Your task to perform on an android device: Open Wikipedia Image 0: 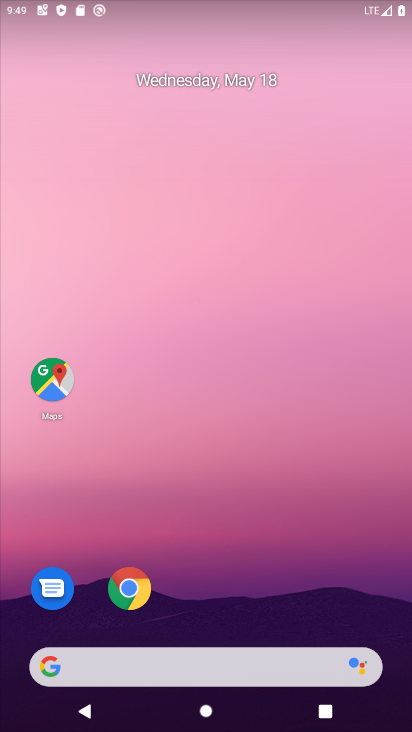
Step 0: click (128, 592)
Your task to perform on an android device: Open Wikipedia Image 1: 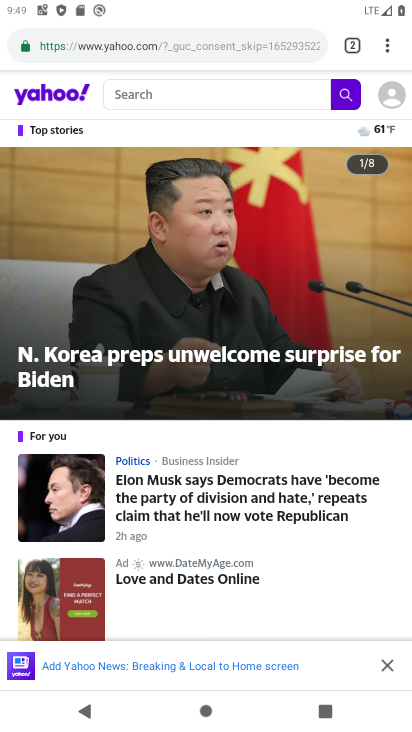
Step 1: click (148, 41)
Your task to perform on an android device: Open Wikipedia Image 2: 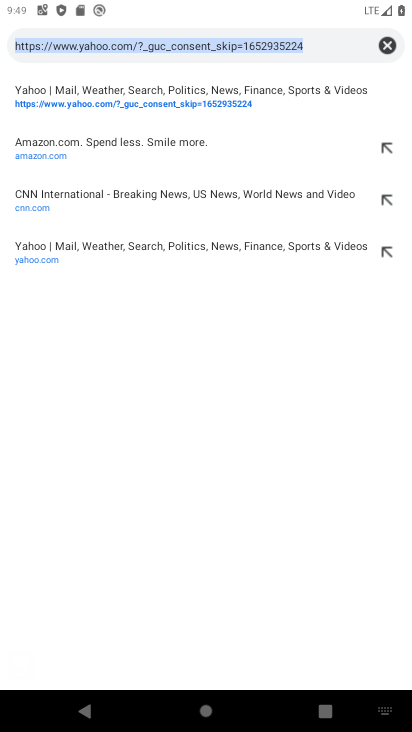
Step 2: click (380, 45)
Your task to perform on an android device: Open Wikipedia Image 3: 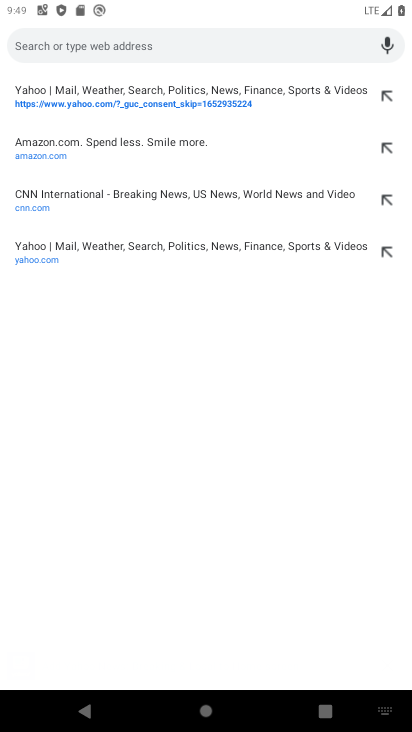
Step 3: type "wikipedia"
Your task to perform on an android device: Open Wikipedia Image 4: 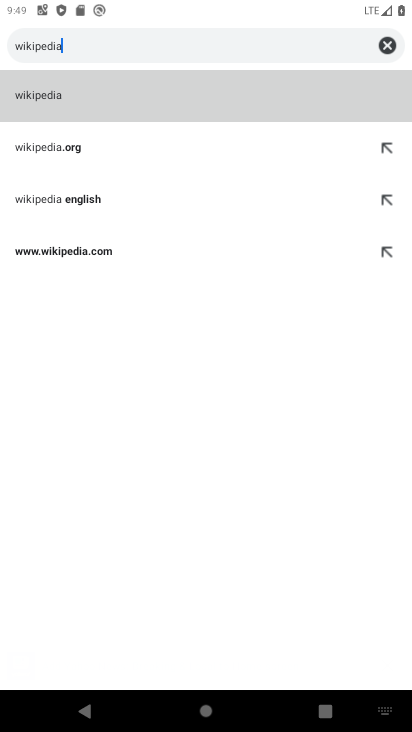
Step 4: click (65, 101)
Your task to perform on an android device: Open Wikipedia Image 5: 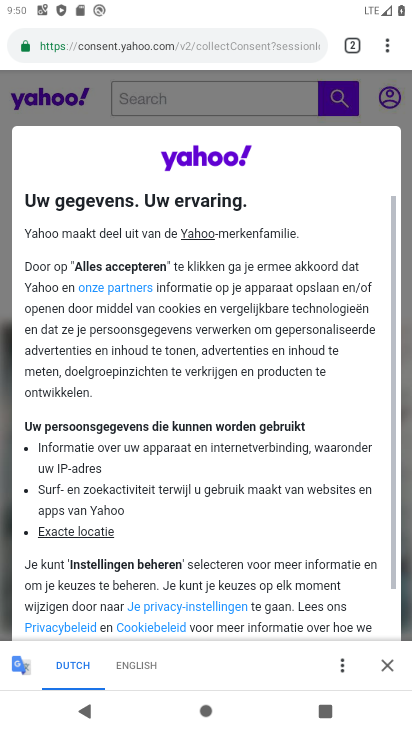
Step 5: click (144, 45)
Your task to perform on an android device: Open Wikipedia Image 6: 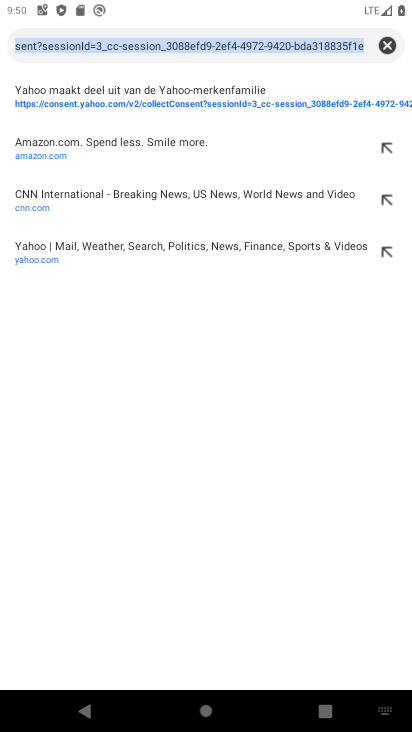
Step 6: click (392, 46)
Your task to perform on an android device: Open Wikipedia Image 7: 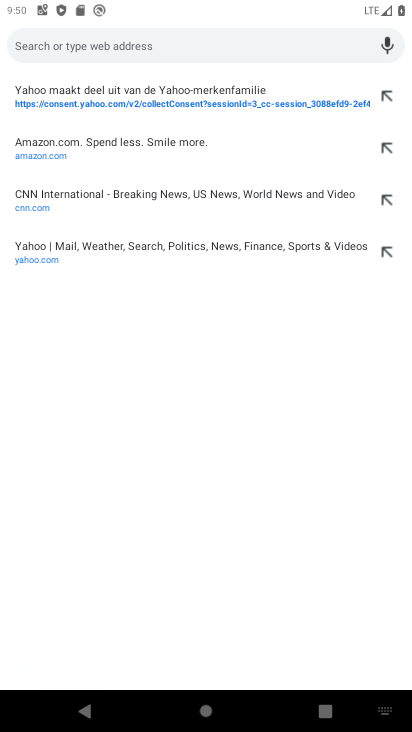
Step 7: type "wikipedia"
Your task to perform on an android device: Open Wikipedia Image 8: 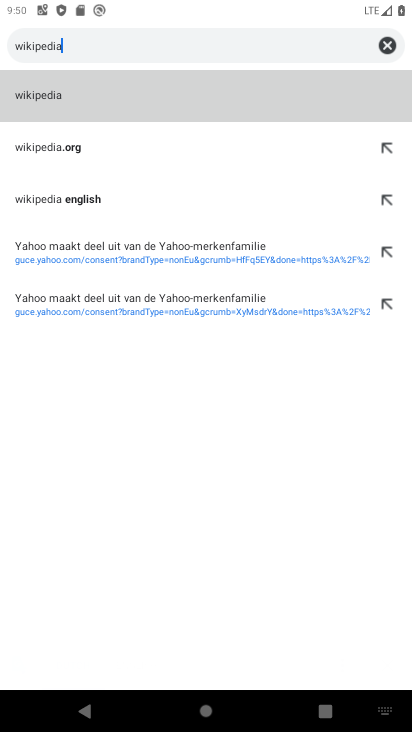
Step 8: click (58, 151)
Your task to perform on an android device: Open Wikipedia Image 9: 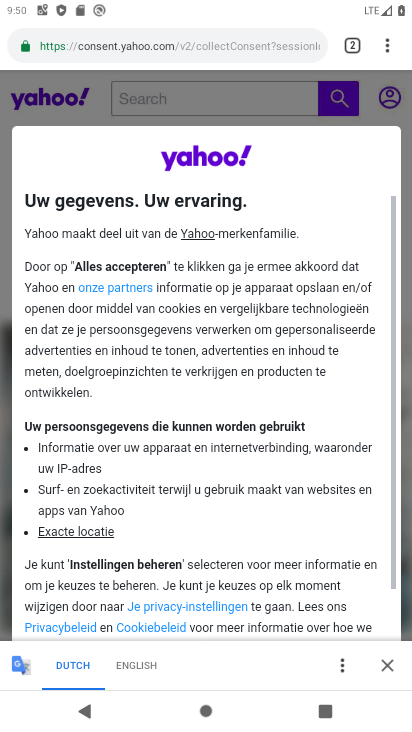
Step 9: click (95, 48)
Your task to perform on an android device: Open Wikipedia Image 10: 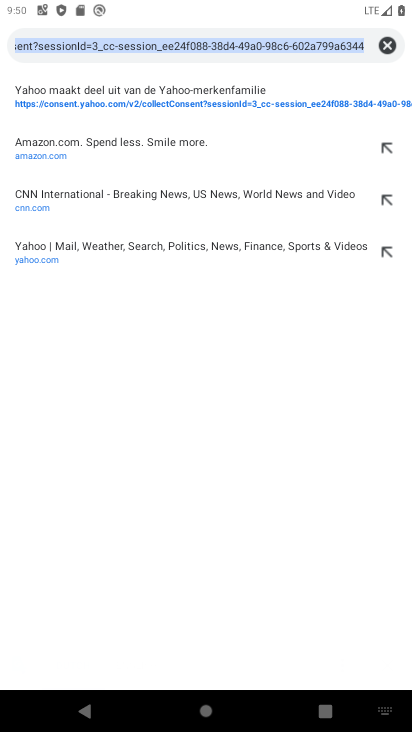
Step 10: click (386, 44)
Your task to perform on an android device: Open Wikipedia Image 11: 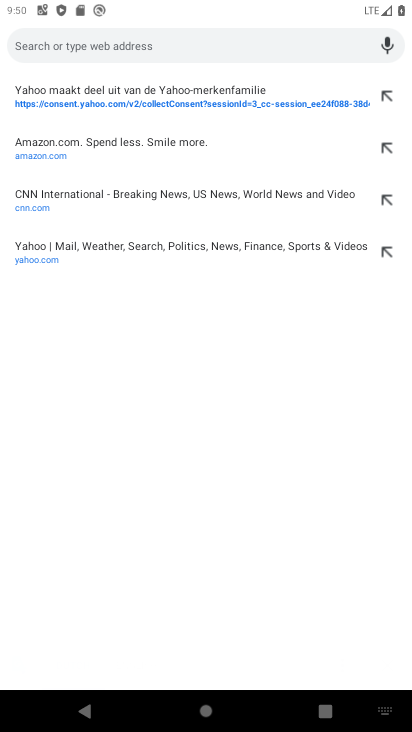
Step 11: type "wikipedia"
Your task to perform on an android device: Open Wikipedia Image 12: 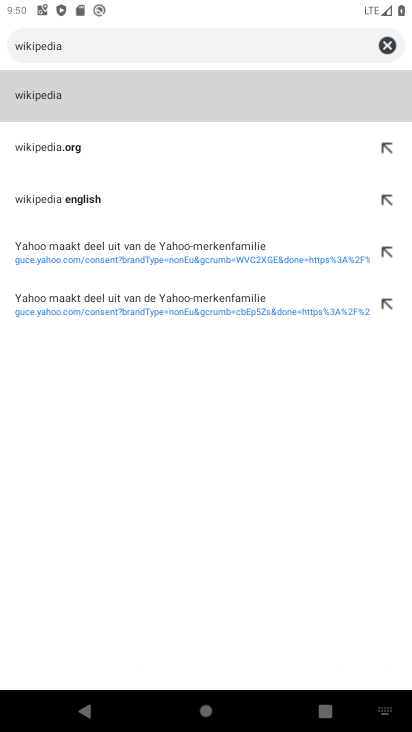
Step 12: click (35, 150)
Your task to perform on an android device: Open Wikipedia Image 13: 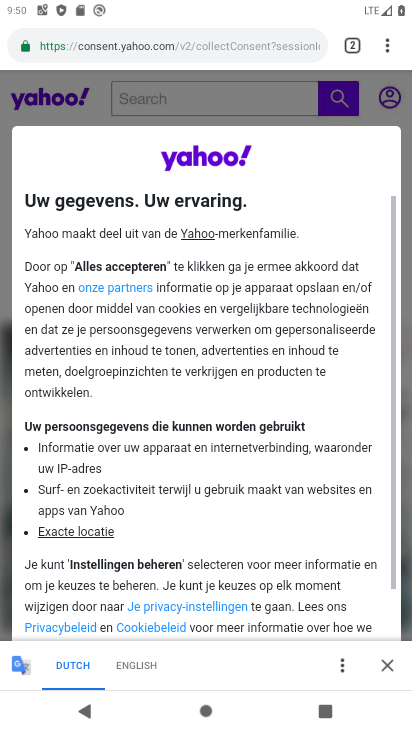
Step 13: task complete